Your task to perform on an android device: open app "Google Docs" Image 0: 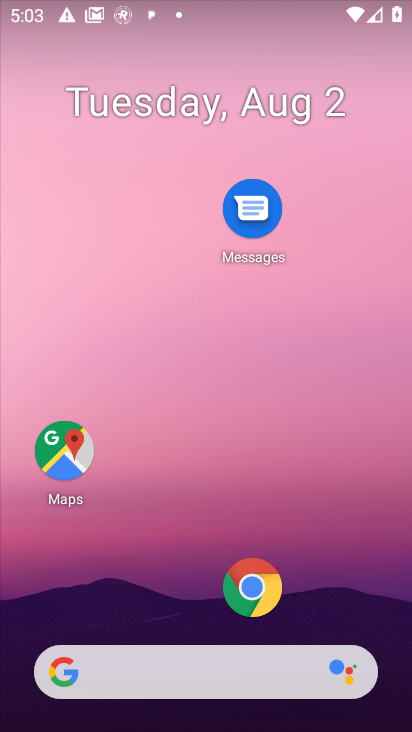
Step 0: drag from (171, 509) to (148, 144)
Your task to perform on an android device: open app "Google Docs" Image 1: 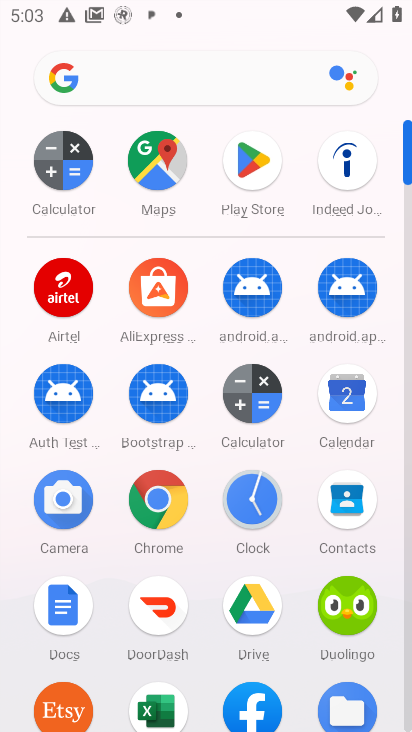
Step 1: click (238, 154)
Your task to perform on an android device: open app "Google Docs" Image 2: 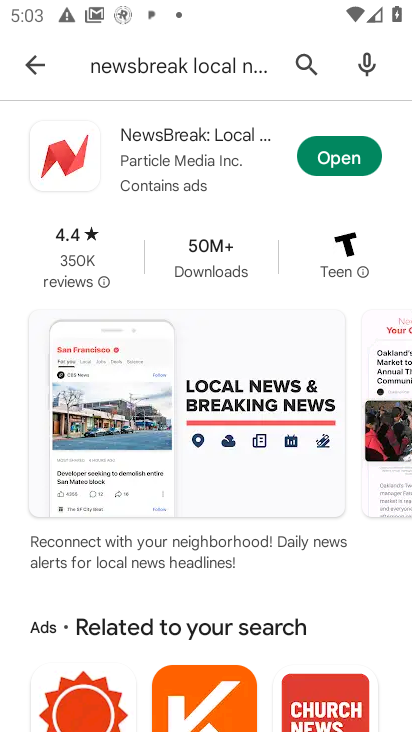
Step 2: click (293, 62)
Your task to perform on an android device: open app "Google Docs" Image 3: 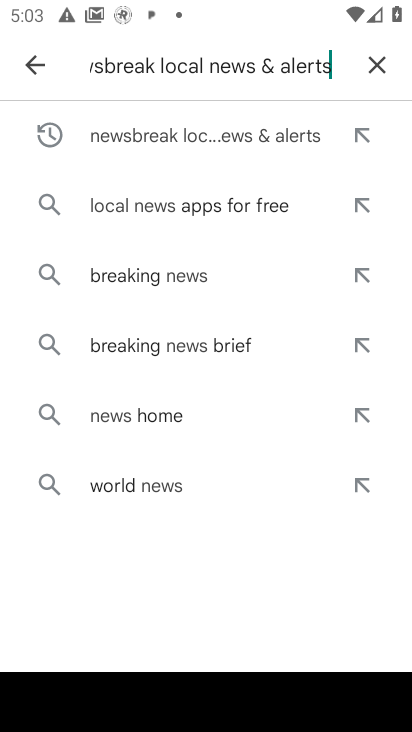
Step 3: click (370, 70)
Your task to perform on an android device: open app "Google Docs" Image 4: 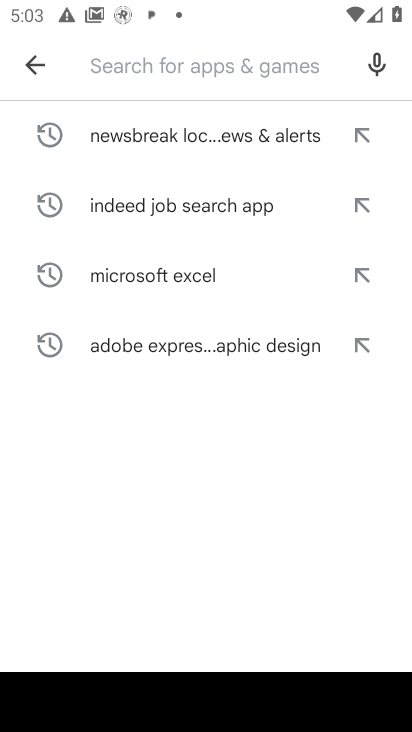
Step 4: type "Google Docs"
Your task to perform on an android device: open app "Google Docs" Image 5: 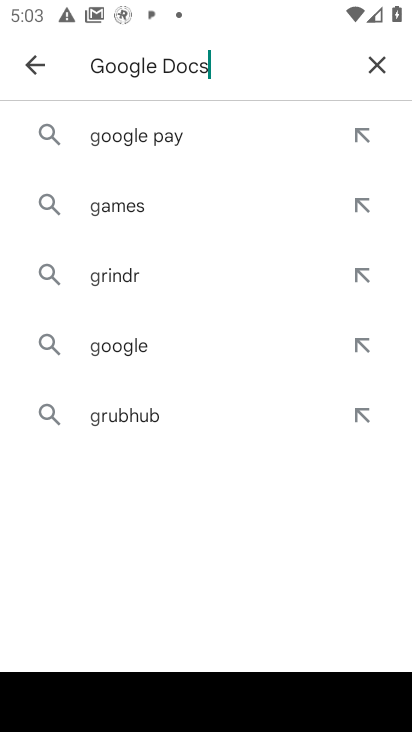
Step 5: type ""
Your task to perform on an android device: open app "Google Docs" Image 6: 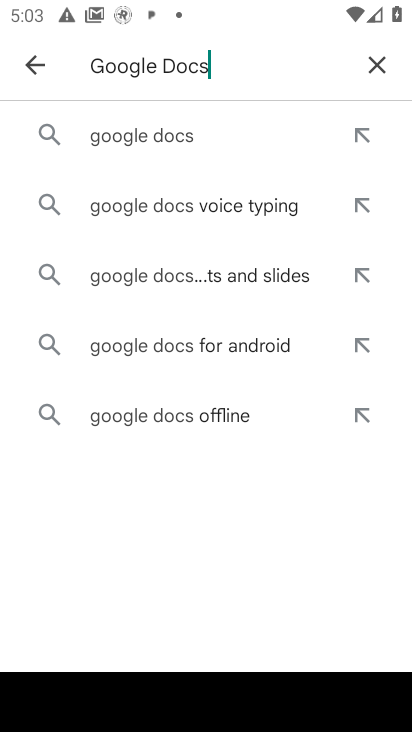
Step 6: click (157, 127)
Your task to perform on an android device: open app "Google Docs" Image 7: 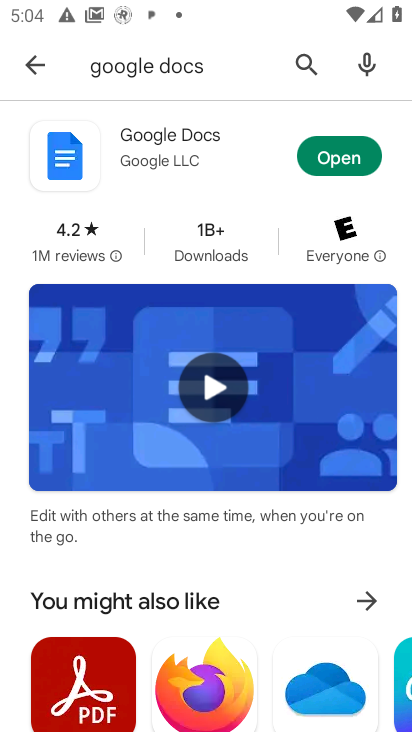
Step 7: click (326, 169)
Your task to perform on an android device: open app "Google Docs" Image 8: 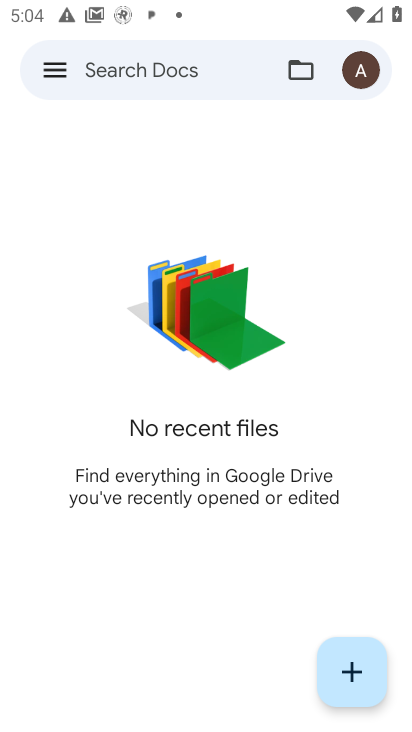
Step 8: task complete